Your task to perform on an android device: Open the web browser Image 0: 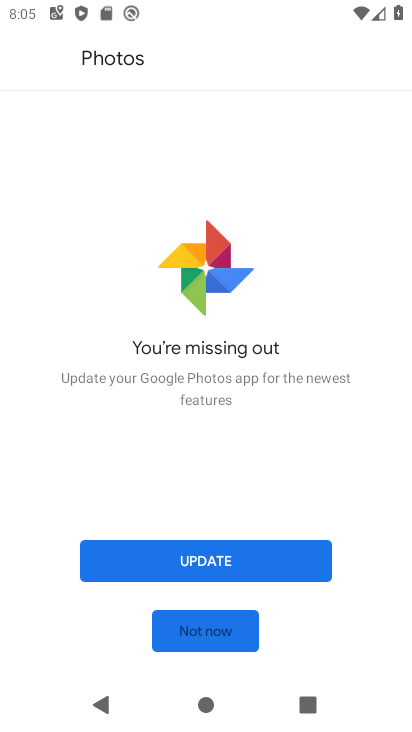
Step 0: press home button
Your task to perform on an android device: Open the web browser Image 1: 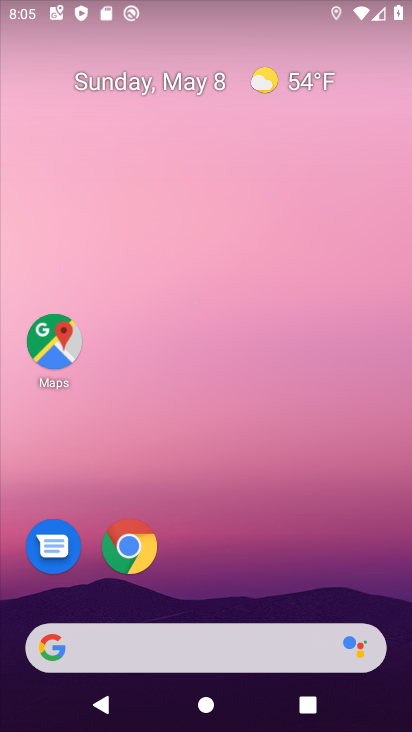
Step 1: click (128, 535)
Your task to perform on an android device: Open the web browser Image 2: 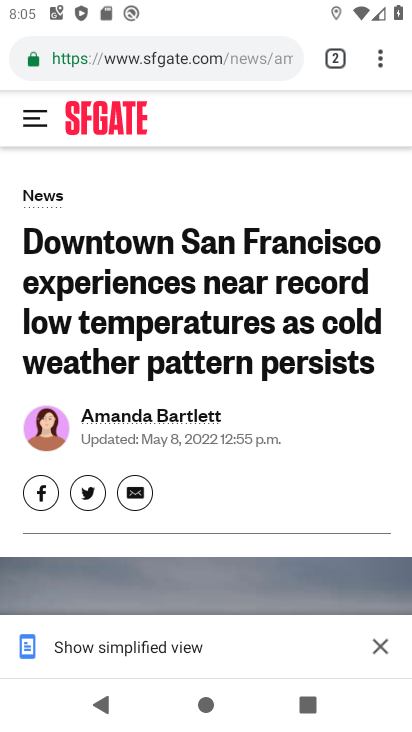
Step 2: task complete